Your task to perform on an android device: Open calendar and show me the second week of next month Image 0: 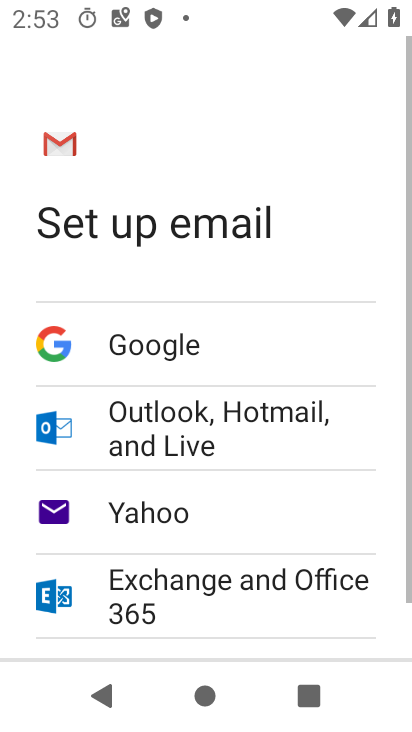
Step 0: press home button
Your task to perform on an android device: Open calendar and show me the second week of next month Image 1: 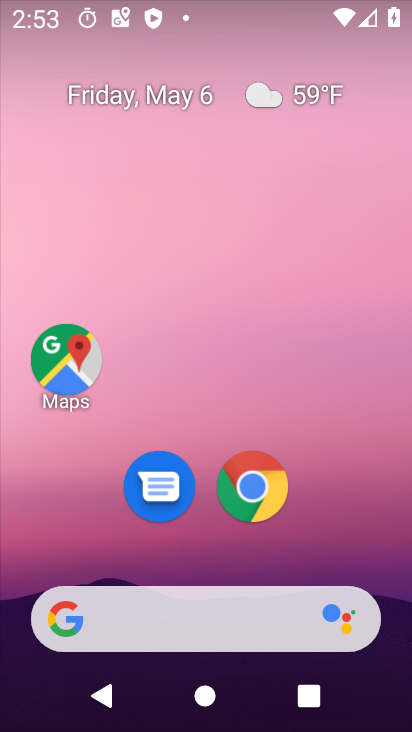
Step 1: drag from (305, 505) to (282, 105)
Your task to perform on an android device: Open calendar and show me the second week of next month Image 2: 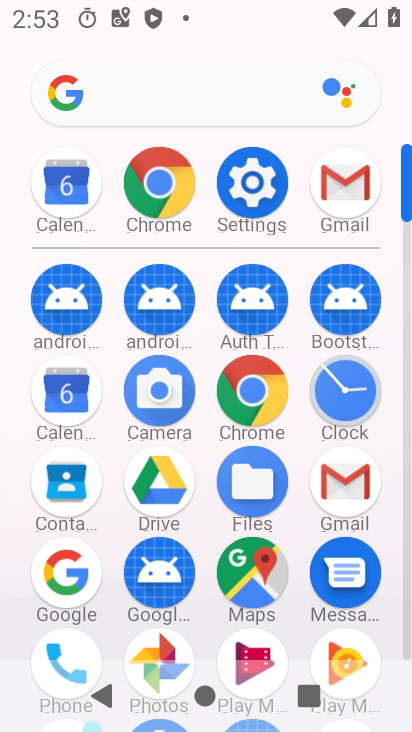
Step 2: click (71, 404)
Your task to perform on an android device: Open calendar and show me the second week of next month Image 3: 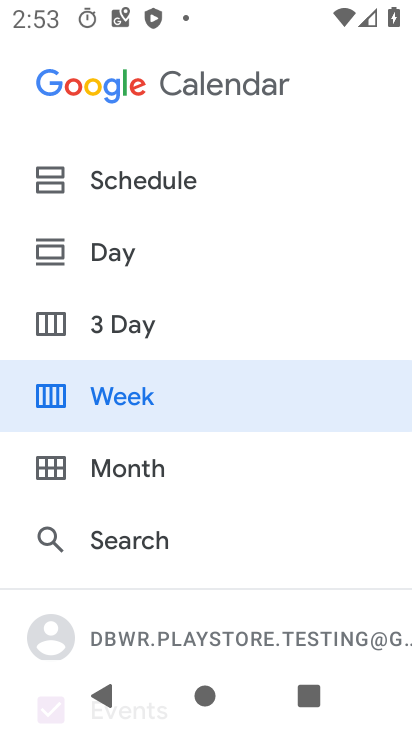
Step 3: click (114, 394)
Your task to perform on an android device: Open calendar and show me the second week of next month Image 4: 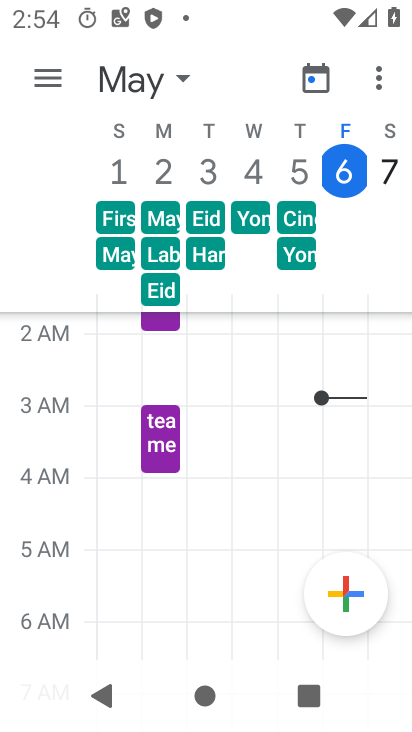
Step 4: click (176, 73)
Your task to perform on an android device: Open calendar and show me the second week of next month Image 5: 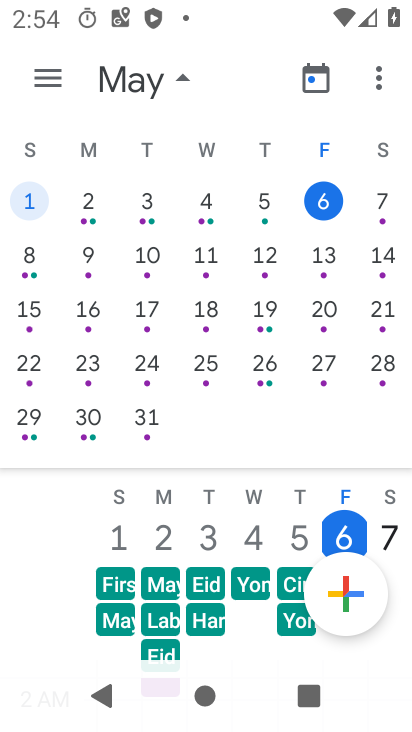
Step 5: click (146, 253)
Your task to perform on an android device: Open calendar and show me the second week of next month Image 6: 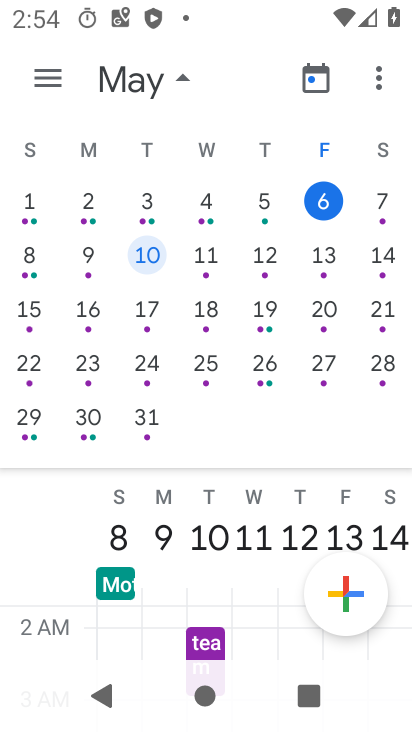
Step 6: task complete